Your task to perform on an android device: check out phone information Image 0: 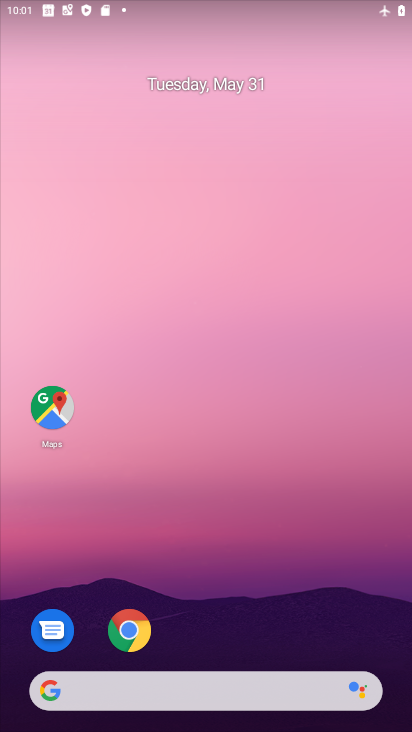
Step 0: drag from (207, 624) to (207, 295)
Your task to perform on an android device: check out phone information Image 1: 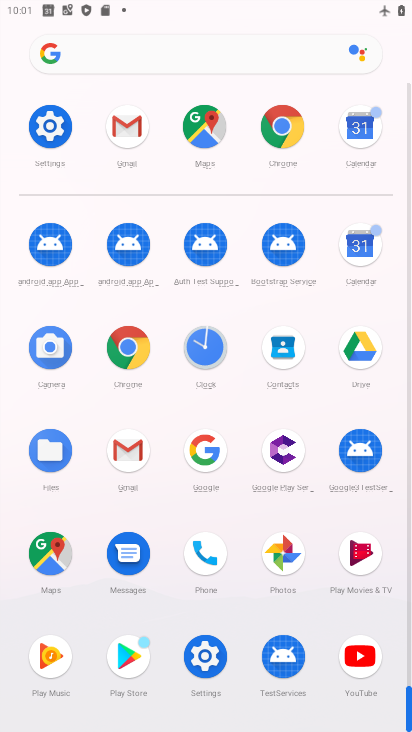
Step 1: click (54, 121)
Your task to perform on an android device: check out phone information Image 2: 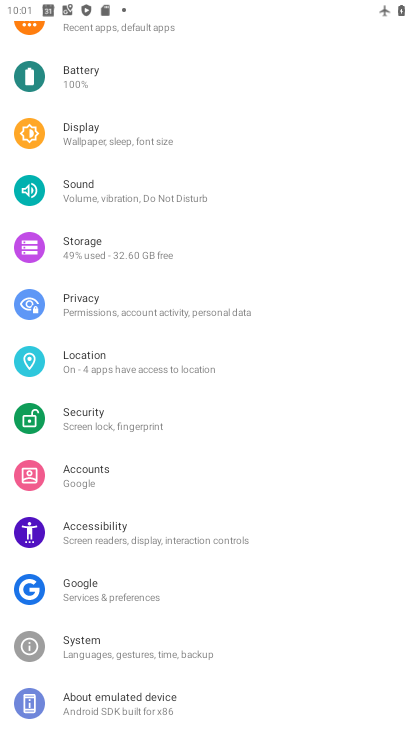
Step 2: drag from (187, 594) to (233, 145)
Your task to perform on an android device: check out phone information Image 3: 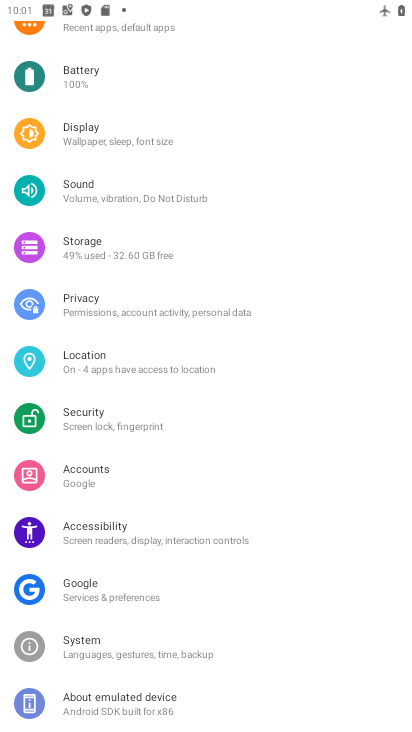
Step 3: click (129, 696)
Your task to perform on an android device: check out phone information Image 4: 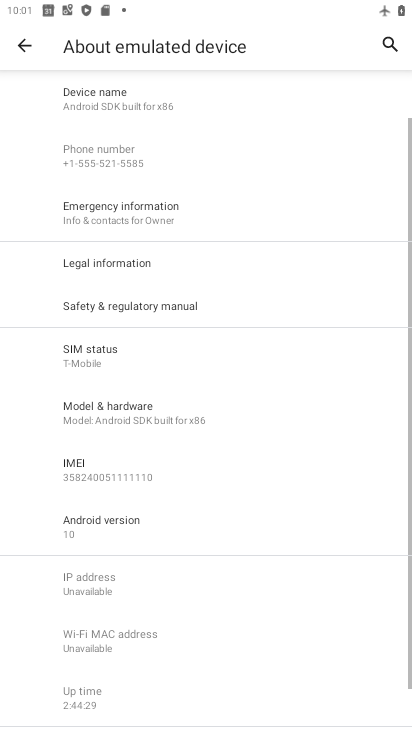
Step 4: task complete